Your task to perform on an android device: Open privacy settings Image 0: 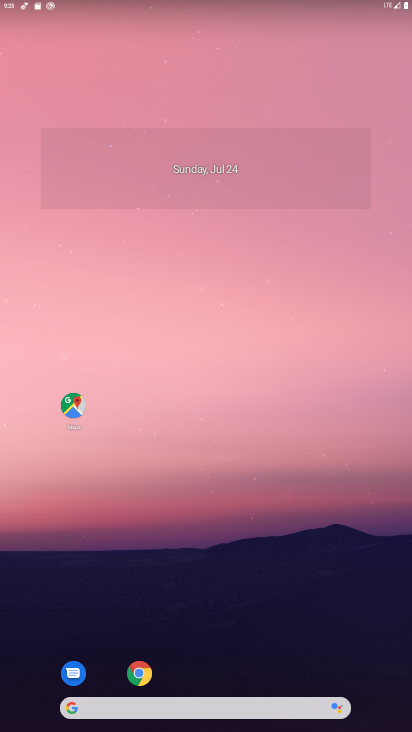
Step 0: drag from (212, 678) to (253, 354)
Your task to perform on an android device: Open privacy settings Image 1: 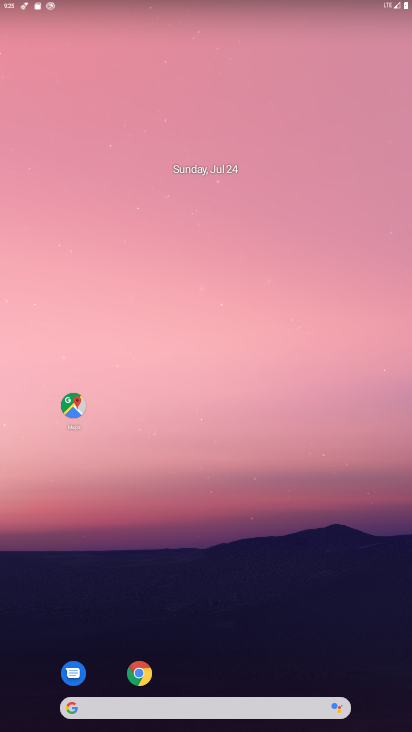
Step 1: drag from (238, 697) to (324, 14)
Your task to perform on an android device: Open privacy settings Image 2: 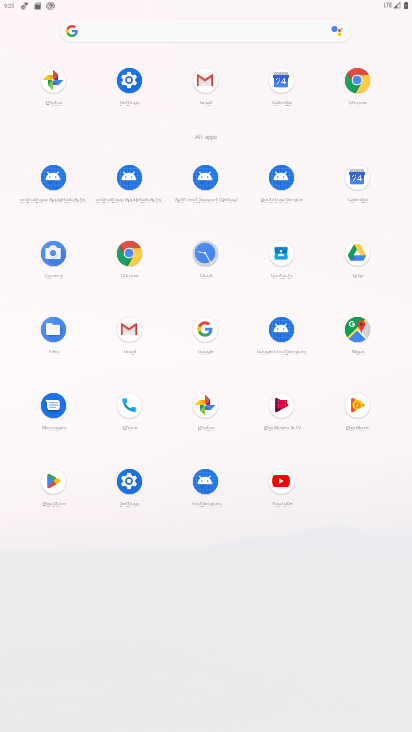
Step 2: click (135, 487)
Your task to perform on an android device: Open privacy settings Image 3: 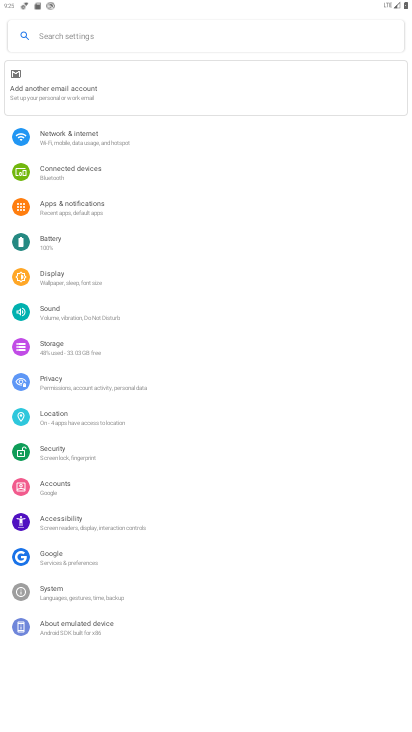
Step 3: click (80, 379)
Your task to perform on an android device: Open privacy settings Image 4: 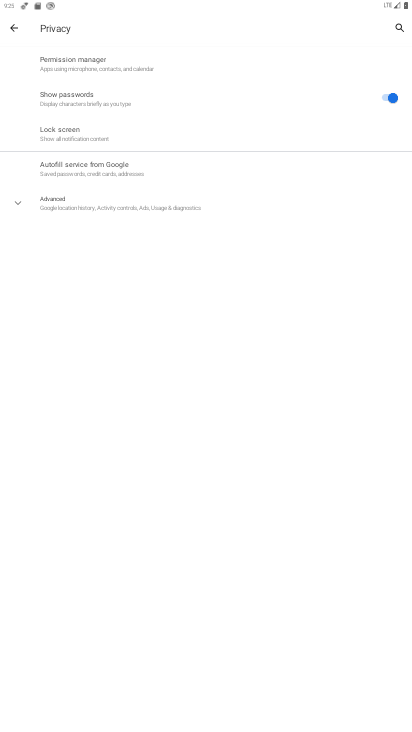
Step 4: task complete